Your task to perform on an android device: turn notification dots off Image 0: 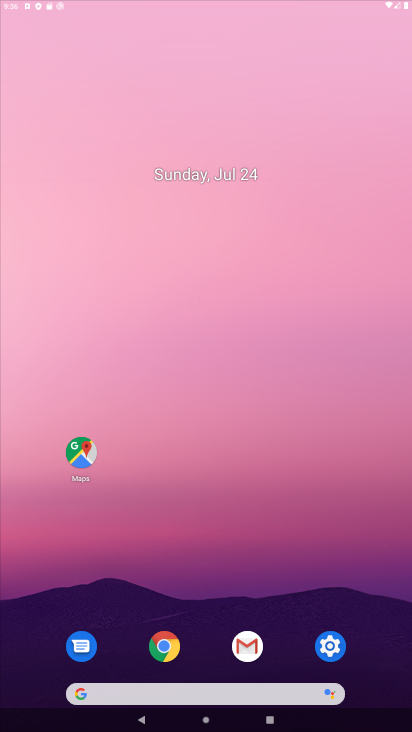
Step 0: click (326, 659)
Your task to perform on an android device: turn notification dots off Image 1: 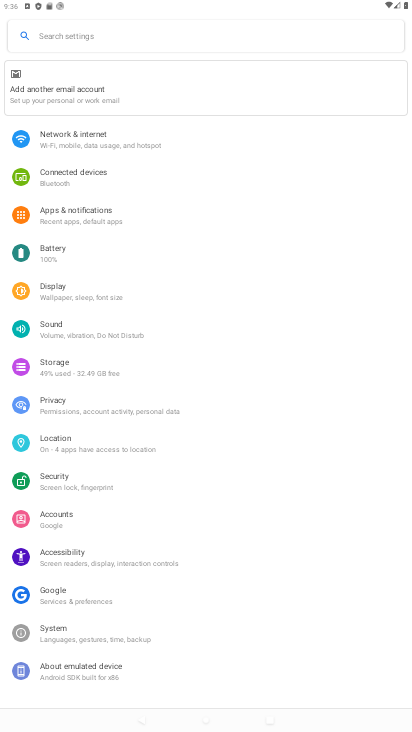
Step 1: click (86, 39)
Your task to perform on an android device: turn notification dots off Image 2: 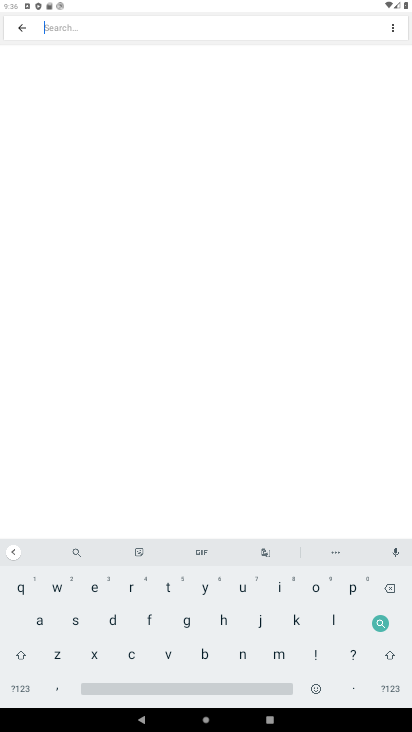
Step 2: click (79, 620)
Your task to perform on an android device: turn notification dots off Image 3: 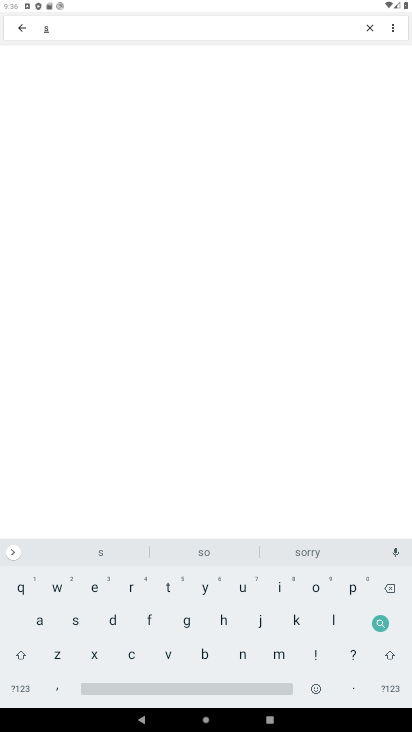
Step 3: click (333, 618)
Your task to perform on an android device: turn notification dots off Image 4: 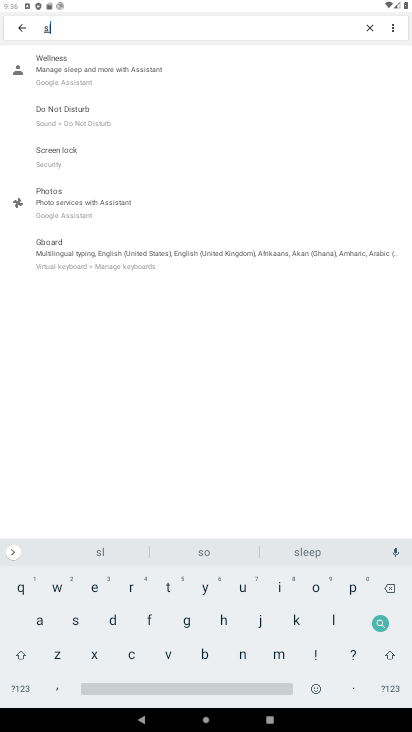
Step 4: click (74, 61)
Your task to perform on an android device: turn notification dots off Image 5: 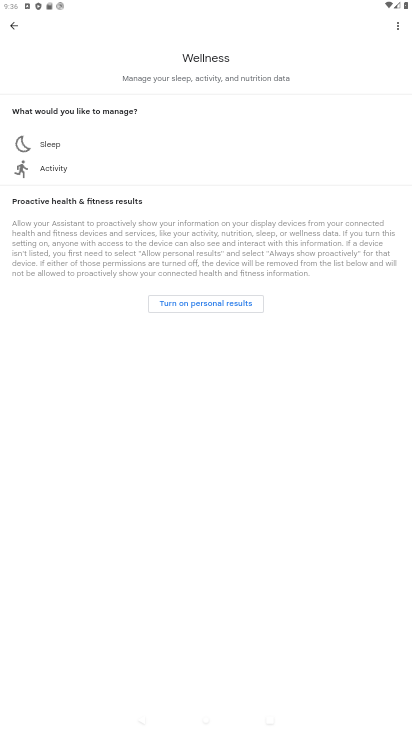
Step 5: click (67, 143)
Your task to perform on an android device: turn notification dots off Image 6: 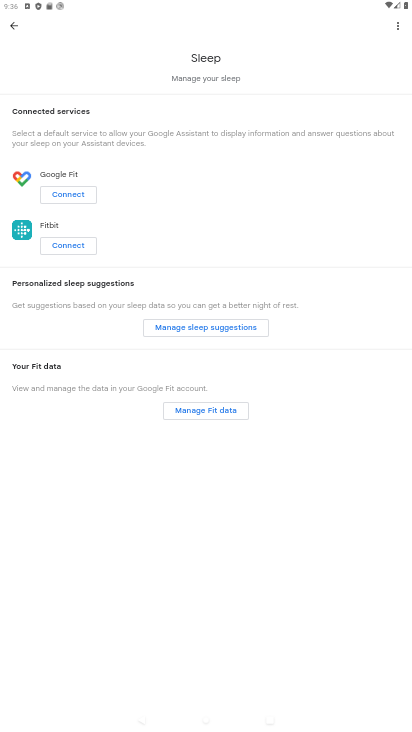
Step 6: task complete